Your task to perform on an android device: check storage Image 0: 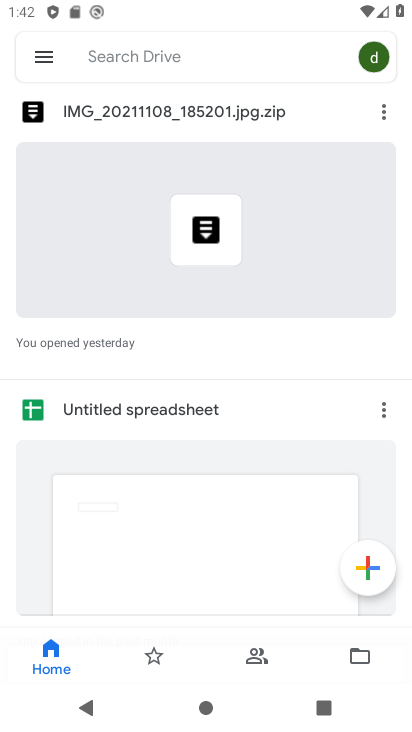
Step 0: press home button
Your task to perform on an android device: check storage Image 1: 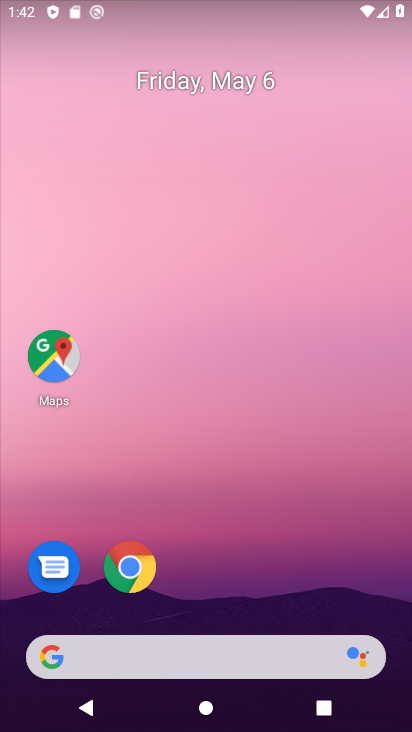
Step 1: drag from (377, 614) to (370, 97)
Your task to perform on an android device: check storage Image 2: 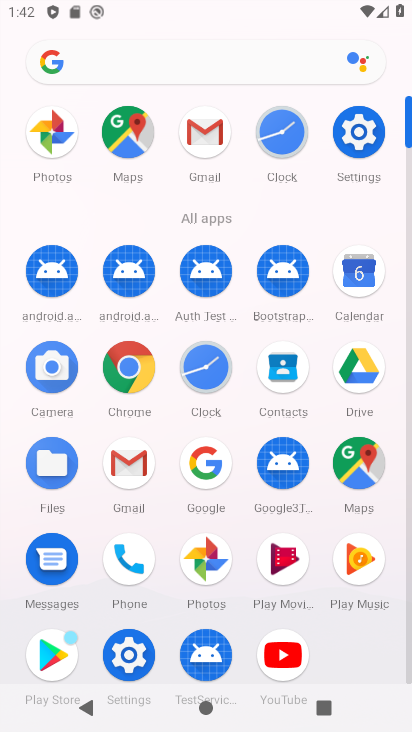
Step 2: click (126, 655)
Your task to perform on an android device: check storage Image 3: 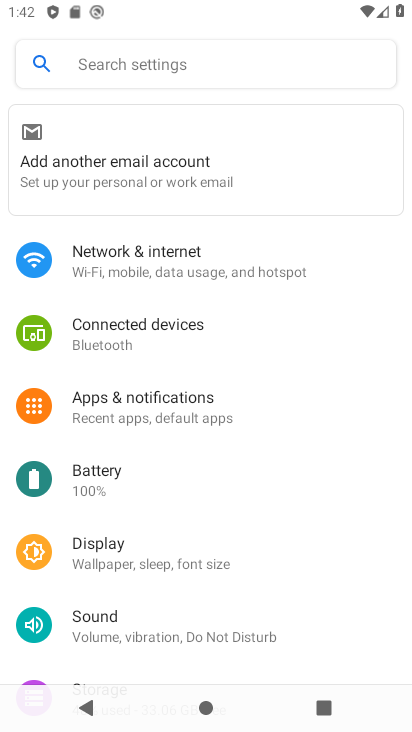
Step 3: click (311, 244)
Your task to perform on an android device: check storage Image 4: 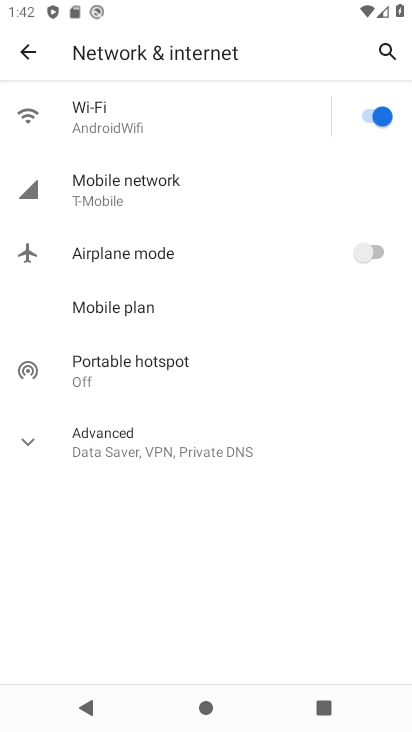
Step 4: press back button
Your task to perform on an android device: check storage Image 5: 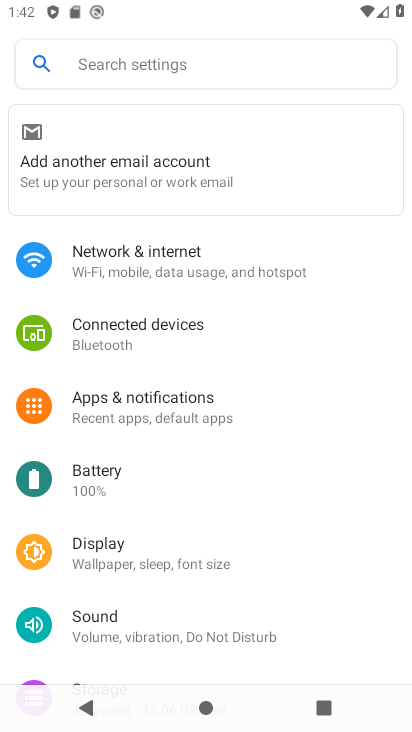
Step 5: drag from (292, 575) to (295, 291)
Your task to perform on an android device: check storage Image 6: 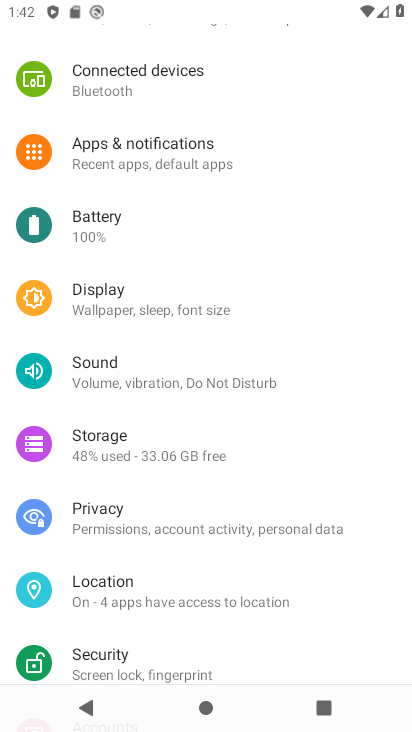
Step 6: click (81, 431)
Your task to perform on an android device: check storage Image 7: 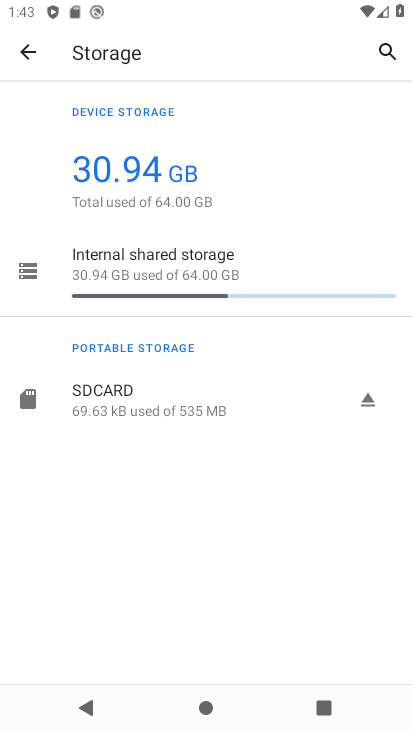
Step 7: task complete